Your task to perform on an android device: Go to Yahoo.com Image 0: 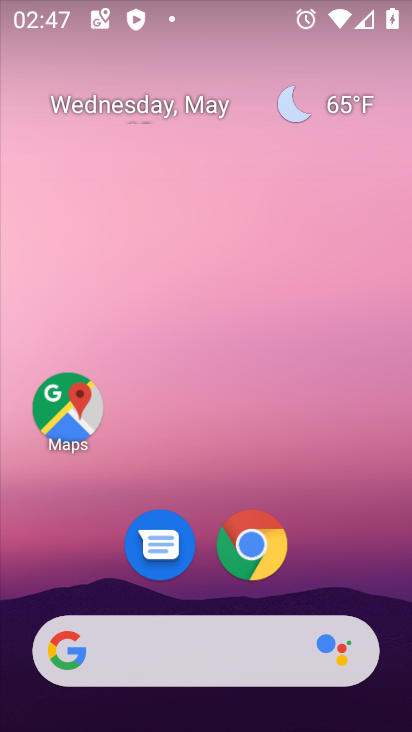
Step 0: click (253, 539)
Your task to perform on an android device: Go to Yahoo.com Image 1: 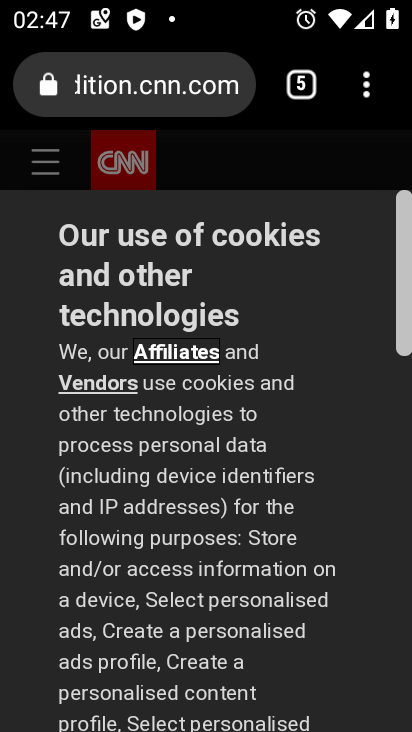
Step 1: click (305, 80)
Your task to perform on an android device: Go to Yahoo.com Image 2: 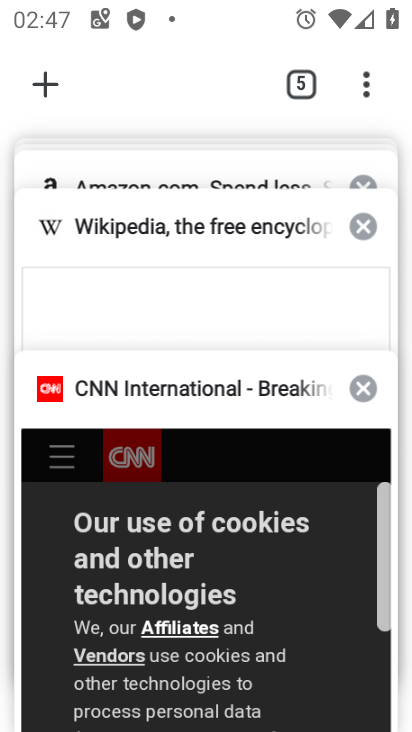
Step 2: drag from (161, 199) to (184, 599)
Your task to perform on an android device: Go to Yahoo.com Image 3: 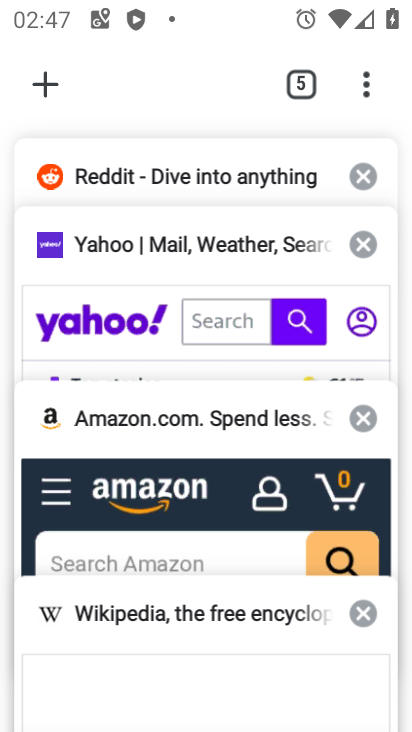
Step 3: click (146, 315)
Your task to perform on an android device: Go to Yahoo.com Image 4: 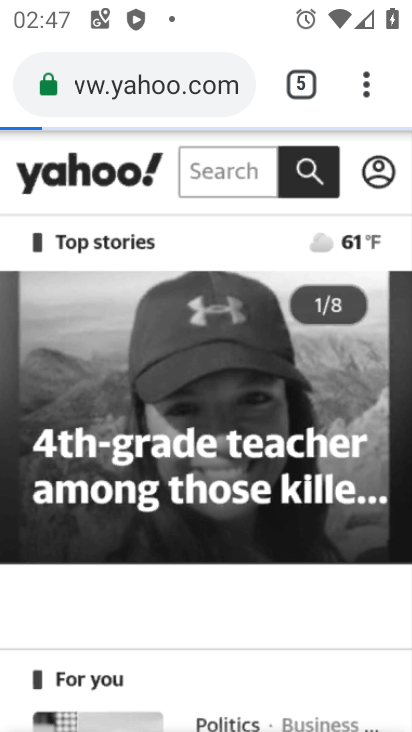
Step 4: task complete